Your task to perform on an android device: Go to ESPN.com Image 0: 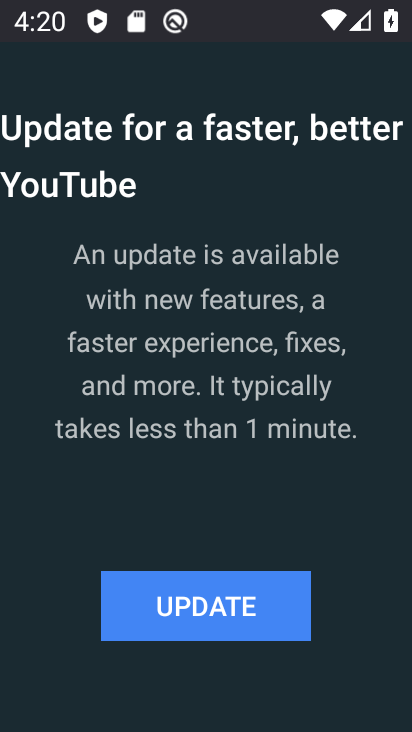
Step 0: press home button
Your task to perform on an android device: Go to ESPN.com Image 1: 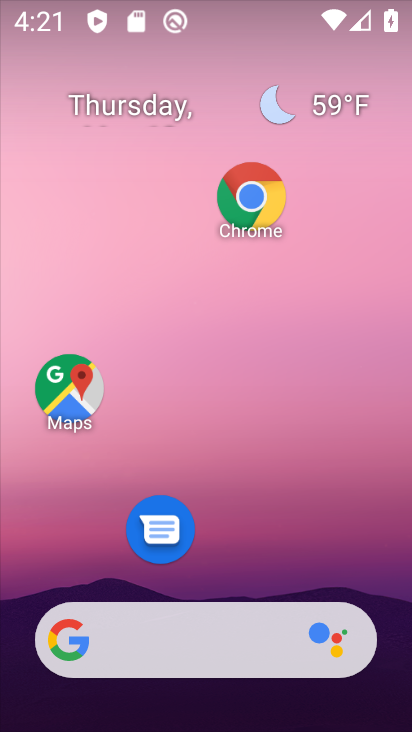
Step 1: click (243, 196)
Your task to perform on an android device: Go to ESPN.com Image 2: 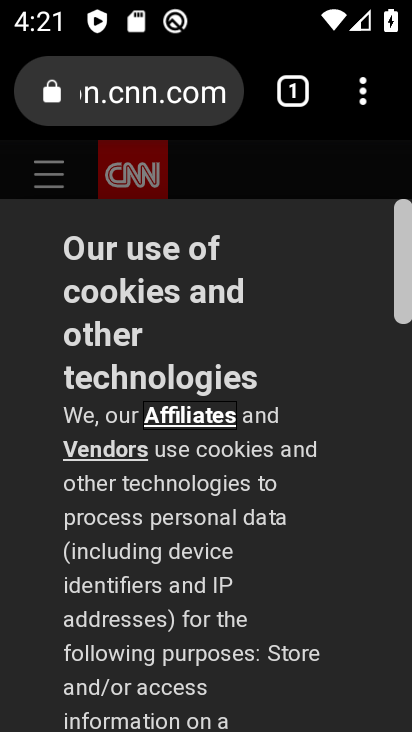
Step 2: drag from (226, 610) to (243, 392)
Your task to perform on an android device: Go to ESPN.com Image 3: 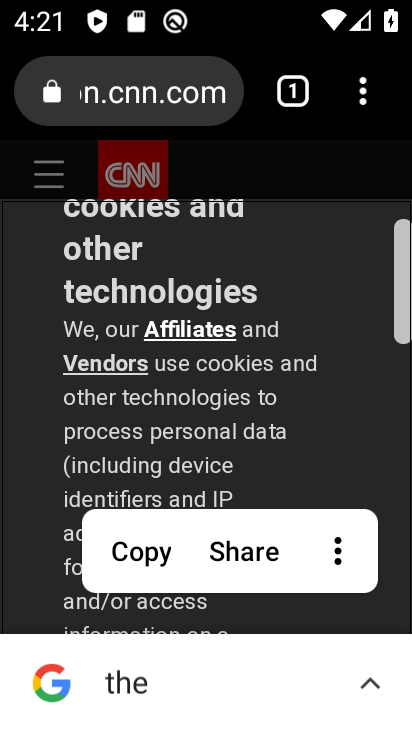
Step 3: click (289, 90)
Your task to perform on an android device: Go to ESPN.com Image 4: 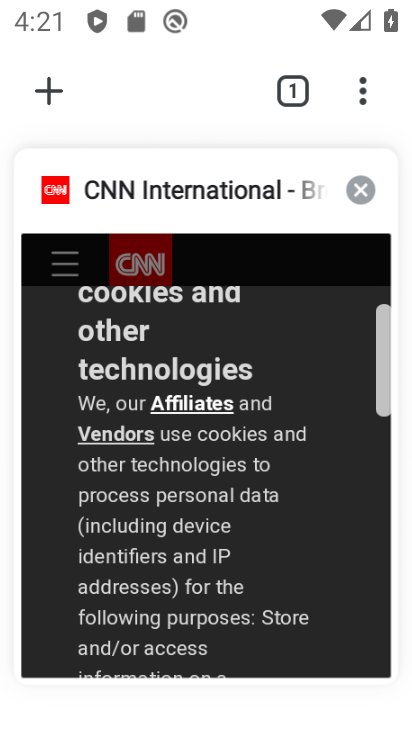
Step 4: click (363, 189)
Your task to perform on an android device: Go to ESPN.com Image 5: 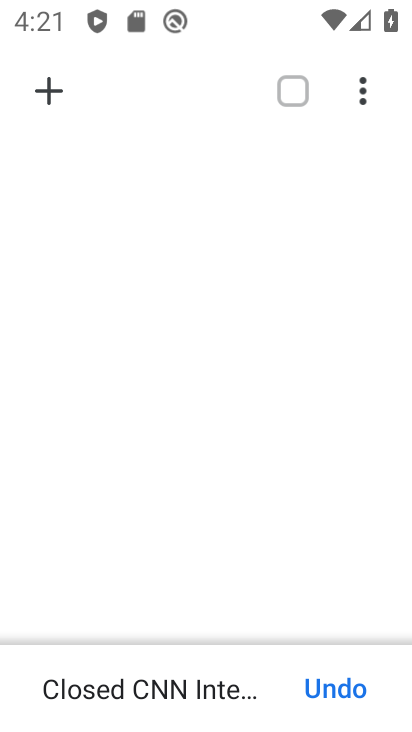
Step 5: click (46, 98)
Your task to perform on an android device: Go to ESPN.com Image 6: 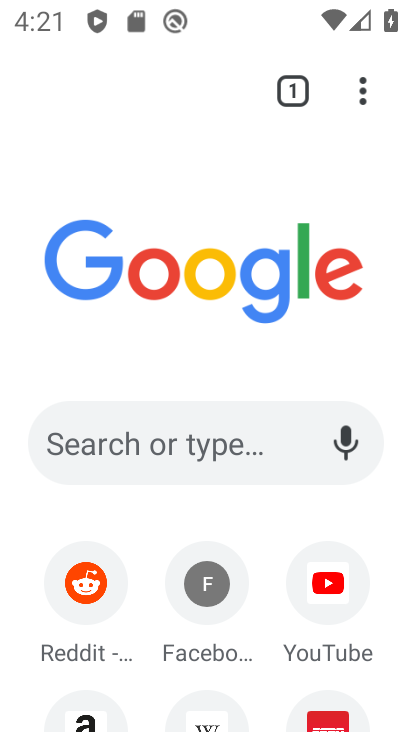
Step 6: click (322, 708)
Your task to perform on an android device: Go to ESPN.com Image 7: 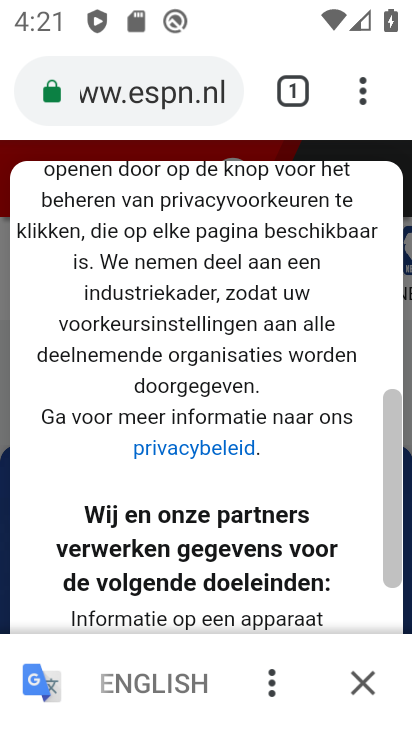
Step 7: drag from (245, 560) to (240, 287)
Your task to perform on an android device: Go to ESPN.com Image 8: 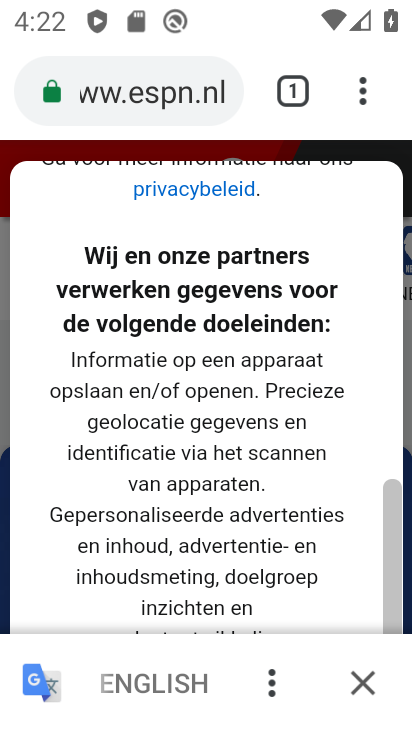
Step 8: drag from (188, 503) to (215, 144)
Your task to perform on an android device: Go to ESPN.com Image 9: 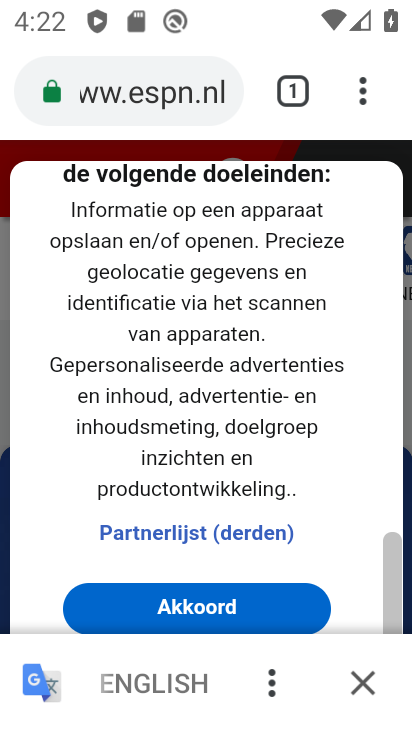
Step 9: click (196, 599)
Your task to perform on an android device: Go to ESPN.com Image 10: 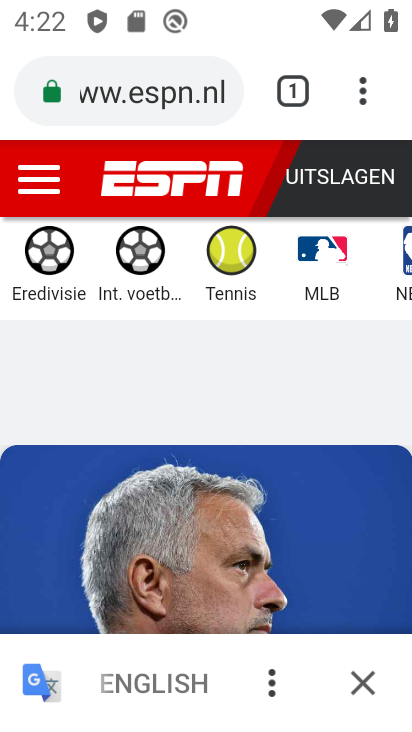
Step 10: task complete